Your task to perform on an android device: toggle javascript in the chrome app Image 0: 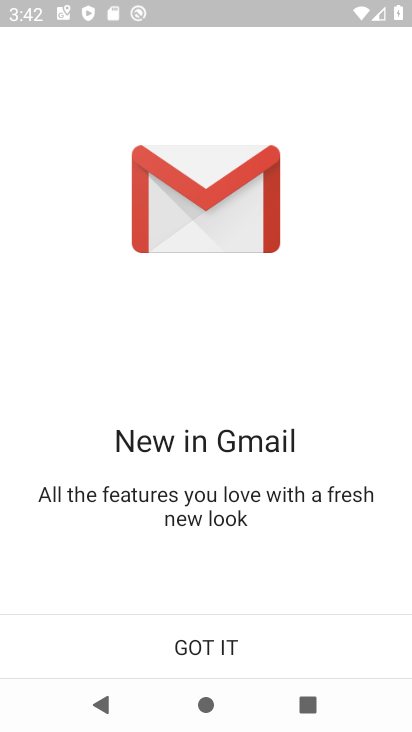
Step 0: click (365, 650)
Your task to perform on an android device: toggle javascript in the chrome app Image 1: 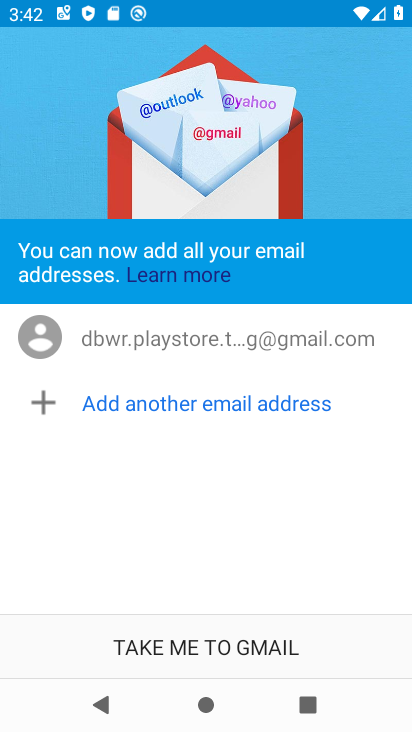
Step 1: click (365, 648)
Your task to perform on an android device: toggle javascript in the chrome app Image 2: 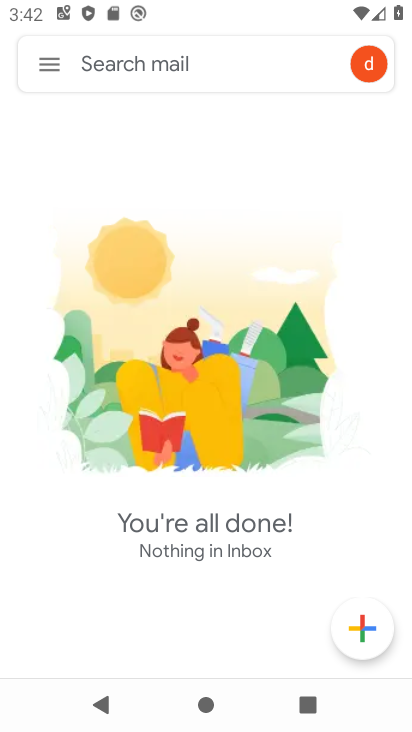
Step 2: press home button
Your task to perform on an android device: toggle javascript in the chrome app Image 3: 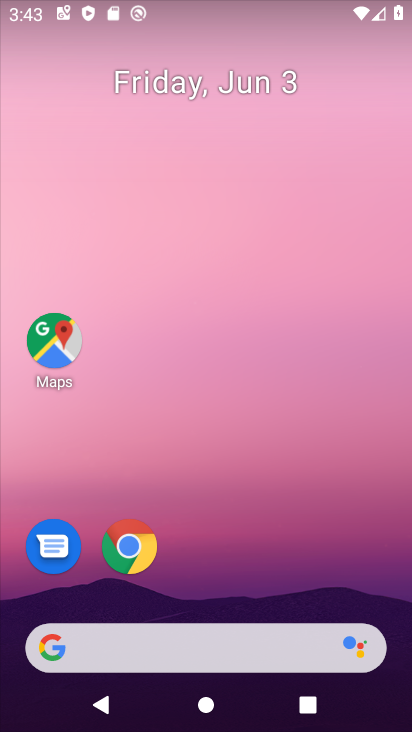
Step 3: click (127, 543)
Your task to perform on an android device: toggle javascript in the chrome app Image 4: 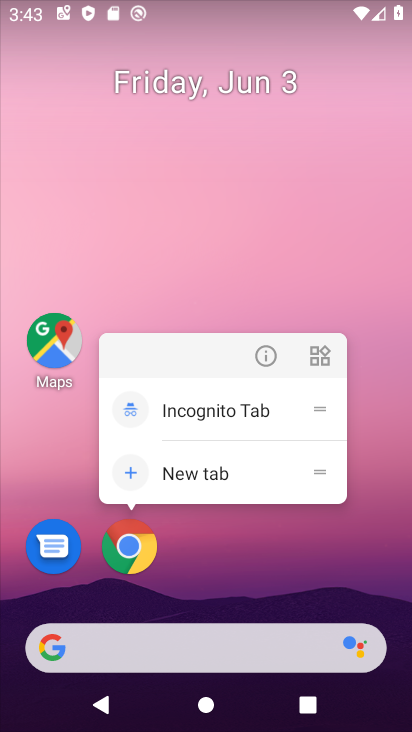
Step 4: click (127, 543)
Your task to perform on an android device: toggle javascript in the chrome app Image 5: 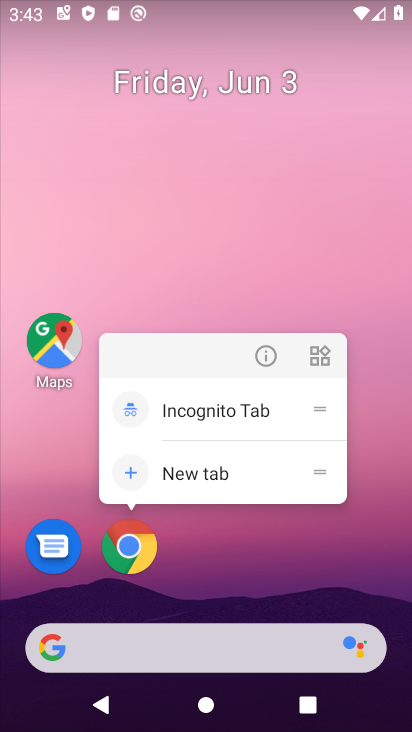
Step 5: click (127, 543)
Your task to perform on an android device: toggle javascript in the chrome app Image 6: 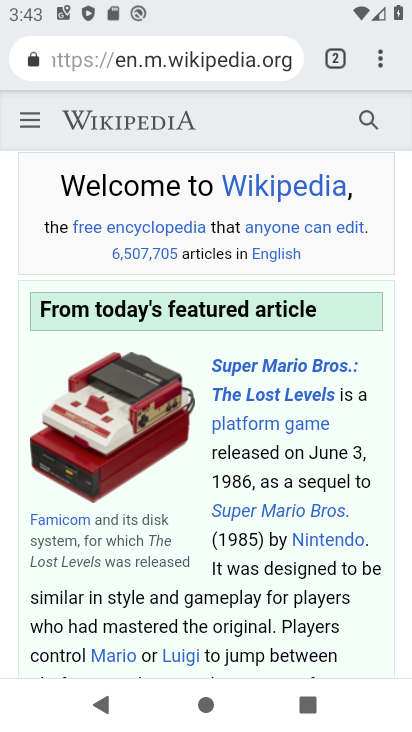
Step 6: click (378, 67)
Your task to perform on an android device: toggle javascript in the chrome app Image 7: 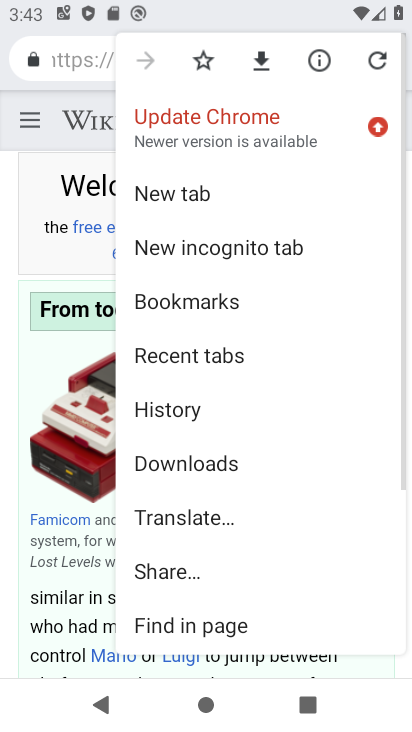
Step 7: drag from (259, 578) to (261, 248)
Your task to perform on an android device: toggle javascript in the chrome app Image 8: 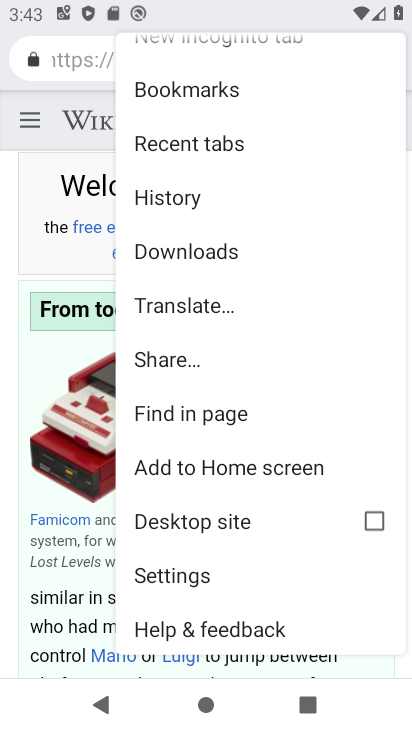
Step 8: click (219, 576)
Your task to perform on an android device: toggle javascript in the chrome app Image 9: 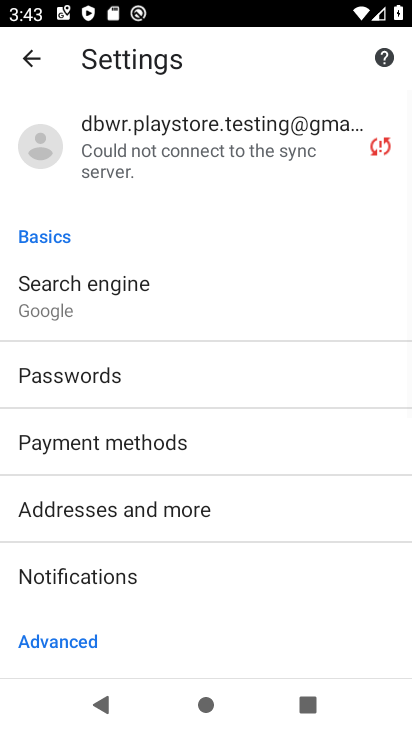
Step 9: drag from (223, 554) to (218, 227)
Your task to perform on an android device: toggle javascript in the chrome app Image 10: 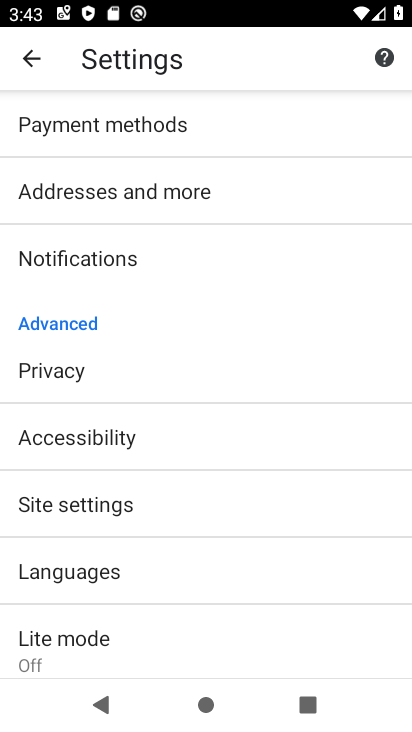
Step 10: click (188, 492)
Your task to perform on an android device: toggle javascript in the chrome app Image 11: 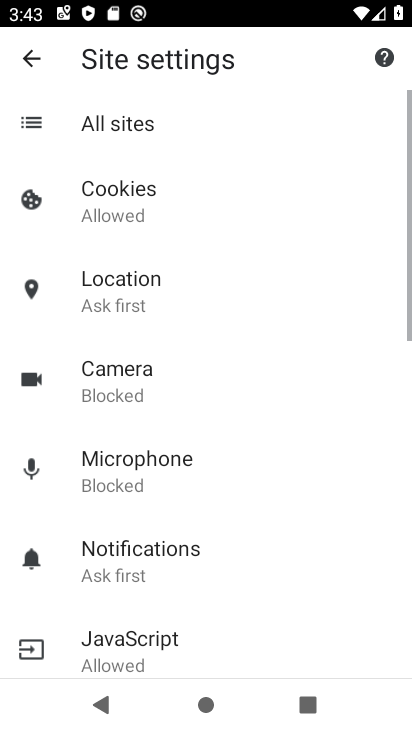
Step 11: drag from (240, 569) to (231, 412)
Your task to perform on an android device: toggle javascript in the chrome app Image 12: 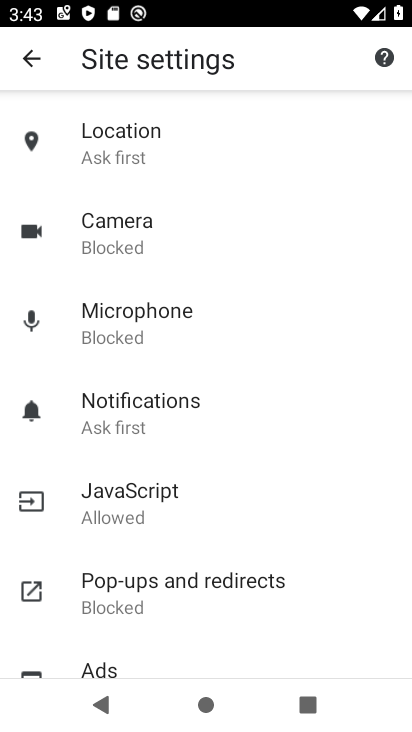
Step 12: click (226, 506)
Your task to perform on an android device: toggle javascript in the chrome app Image 13: 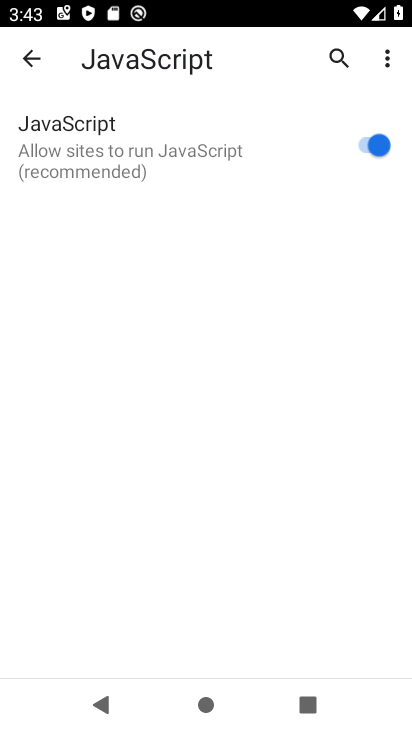
Step 13: click (368, 133)
Your task to perform on an android device: toggle javascript in the chrome app Image 14: 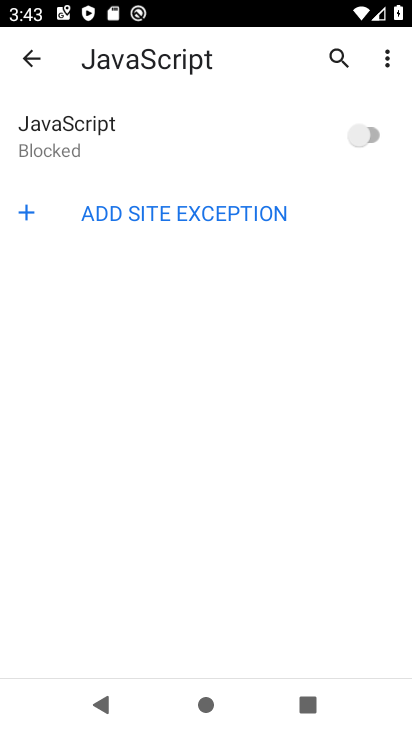
Step 14: task complete